Your task to perform on an android device: check android version Image 0: 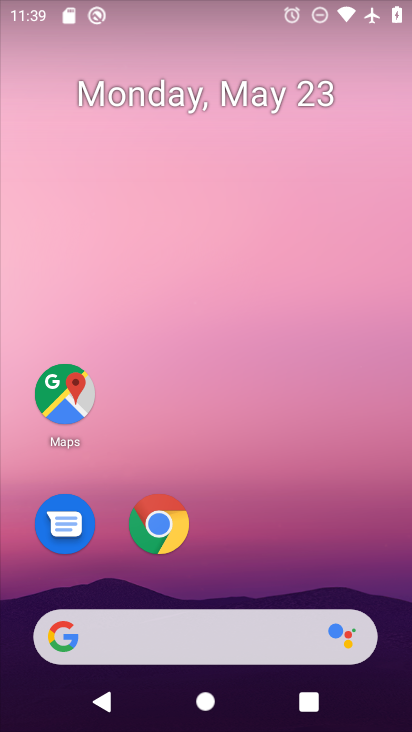
Step 0: drag from (215, 560) to (244, 225)
Your task to perform on an android device: check android version Image 1: 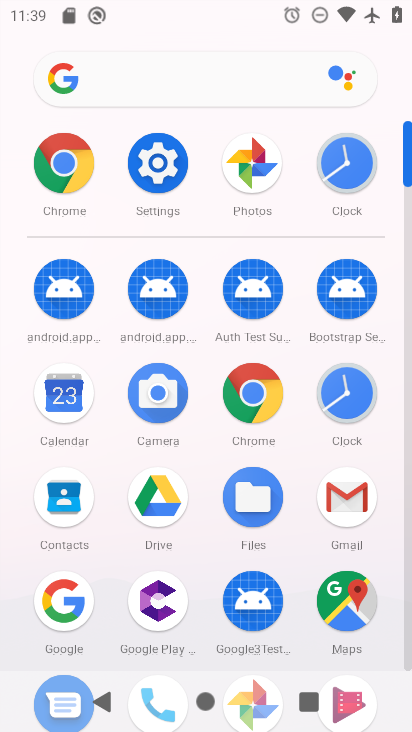
Step 1: click (138, 163)
Your task to perform on an android device: check android version Image 2: 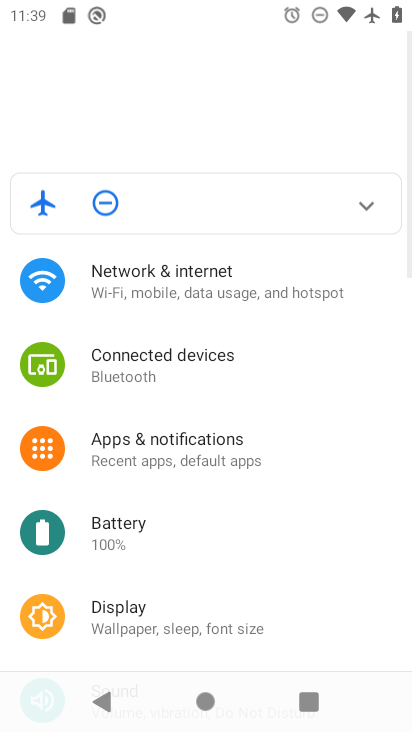
Step 2: drag from (203, 544) to (223, 125)
Your task to perform on an android device: check android version Image 3: 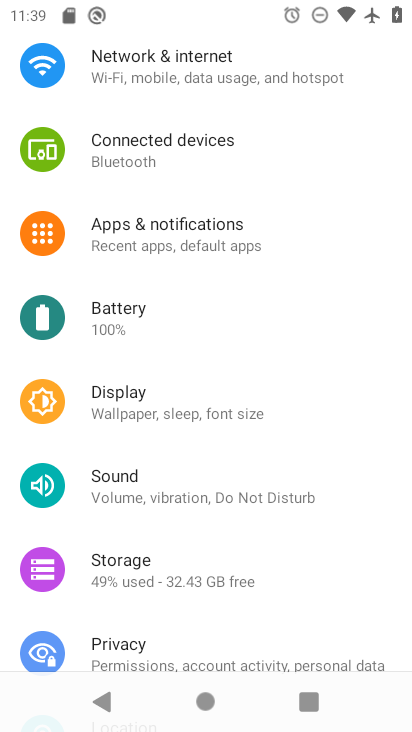
Step 3: drag from (217, 542) to (253, 140)
Your task to perform on an android device: check android version Image 4: 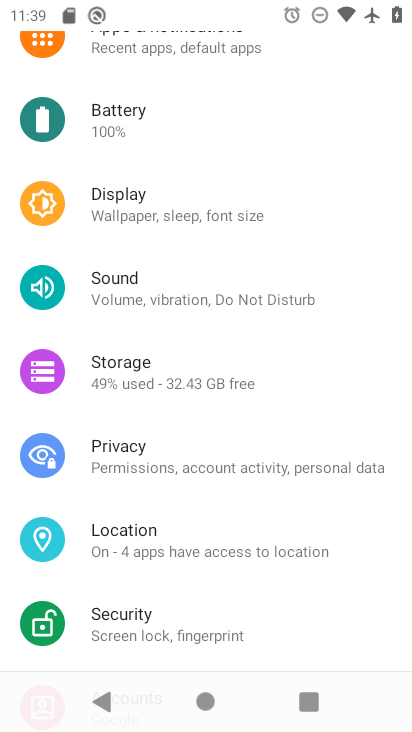
Step 4: drag from (194, 586) to (222, 170)
Your task to perform on an android device: check android version Image 5: 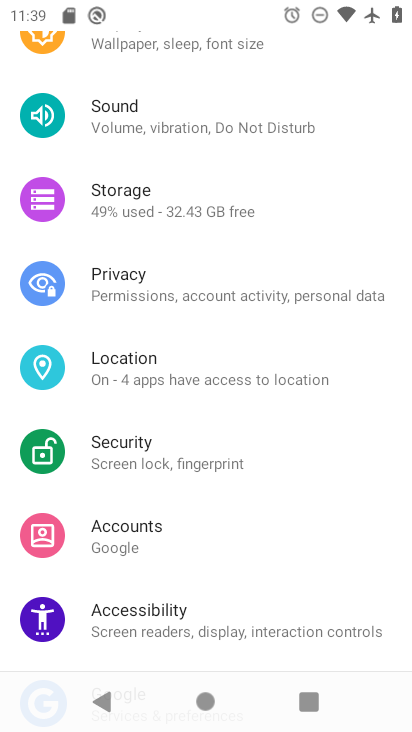
Step 5: drag from (186, 424) to (207, 91)
Your task to perform on an android device: check android version Image 6: 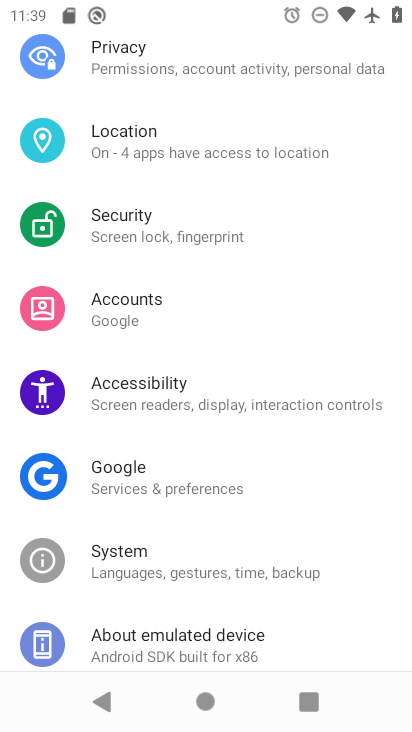
Step 6: click (142, 659)
Your task to perform on an android device: check android version Image 7: 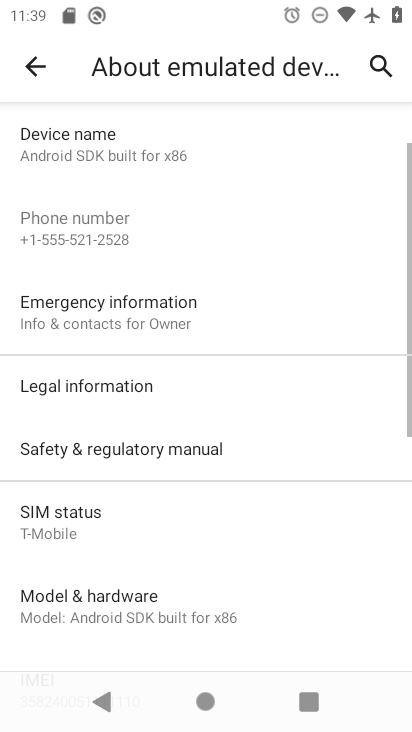
Step 7: drag from (146, 395) to (189, 134)
Your task to perform on an android device: check android version Image 8: 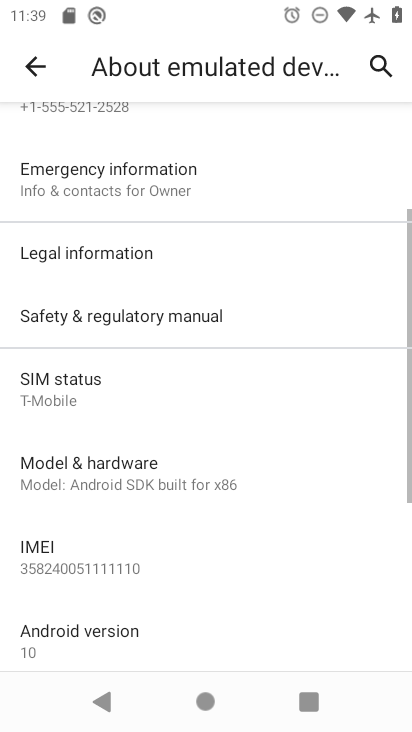
Step 8: click (93, 624)
Your task to perform on an android device: check android version Image 9: 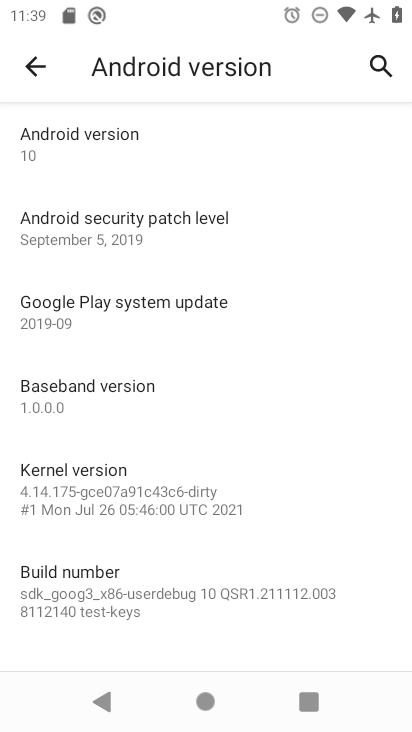
Step 9: click (123, 146)
Your task to perform on an android device: check android version Image 10: 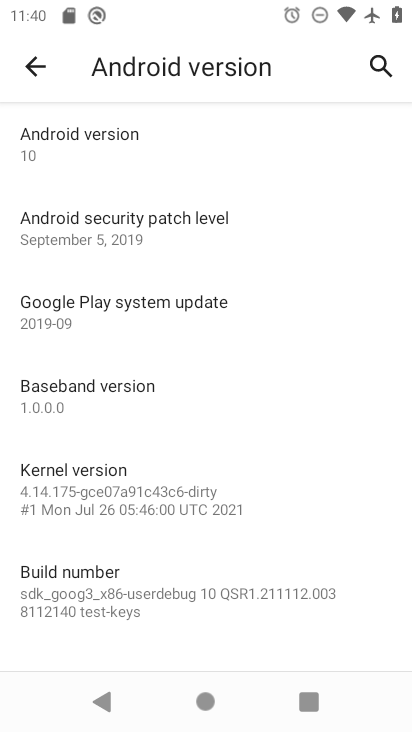
Step 10: click (90, 154)
Your task to perform on an android device: check android version Image 11: 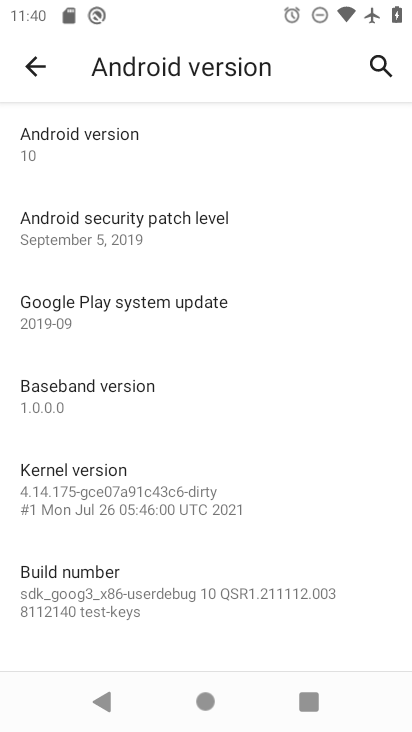
Step 11: click (91, 159)
Your task to perform on an android device: check android version Image 12: 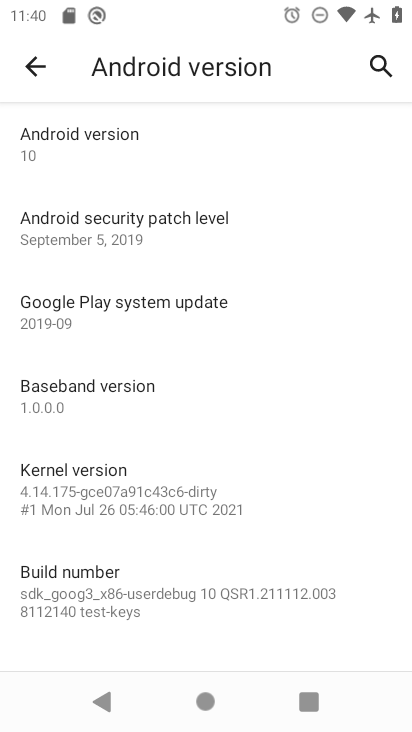
Step 12: click (97, 168)
Your task to perform on an android device: check android version Image 13: 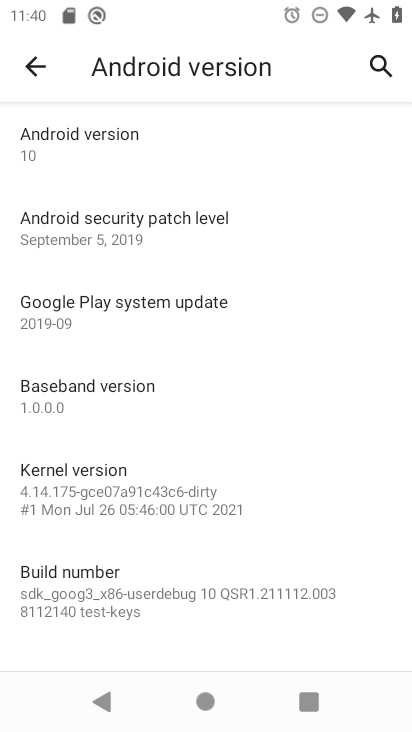
Step 13: task complete